Your task to perform on an android device: Open CNN.com Image 0: 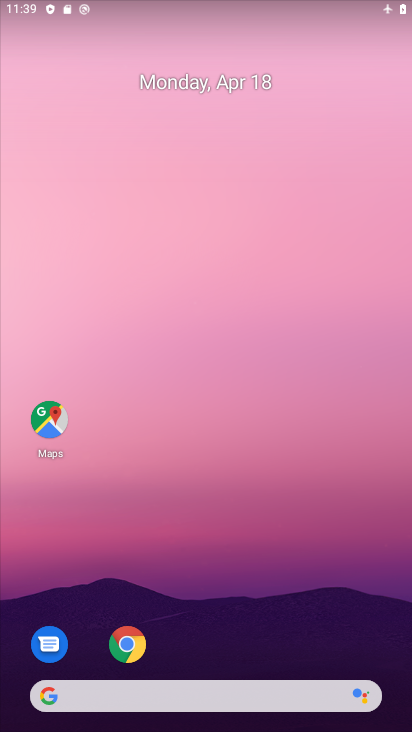
Step 0: click (127, 638)
Your task to perform on an android device: Open CNN.com Image 1: 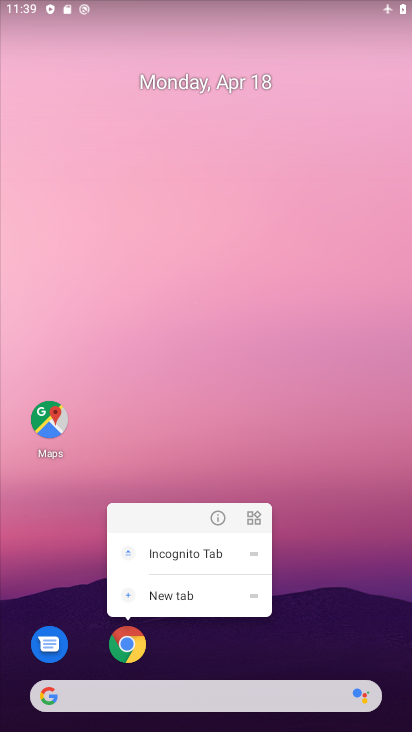
Step 1: click (117, 654)
Your task to perform on an android device: Open CNN.com Image 2: 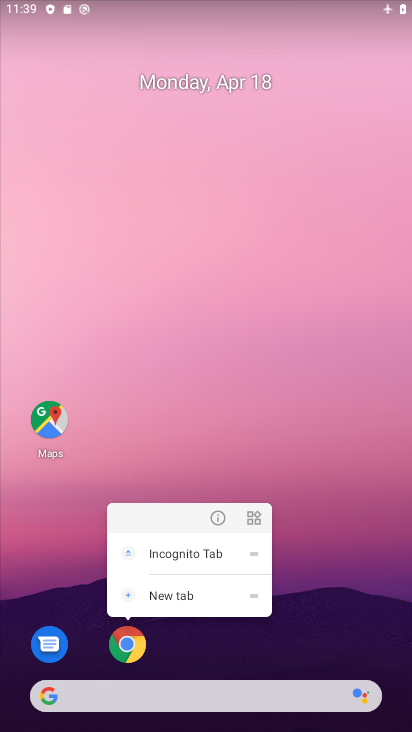
Step 2: click (128, 648)
Your task to perform on an android device: Open CNN.com Image 3: 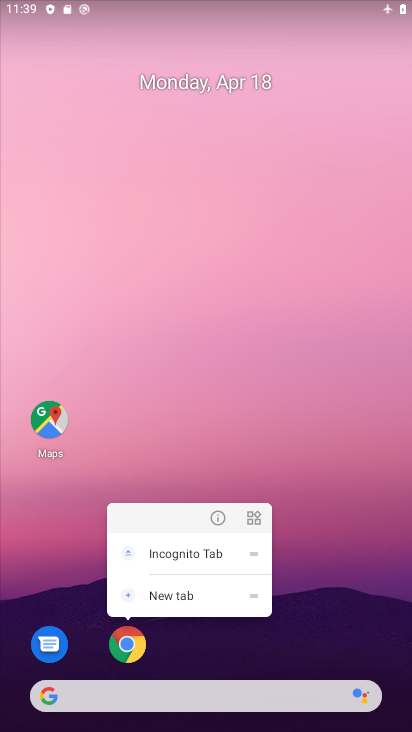
Step 3: click (134, 648)
Your task to perform on an android device: Open CNN.com Image 4: 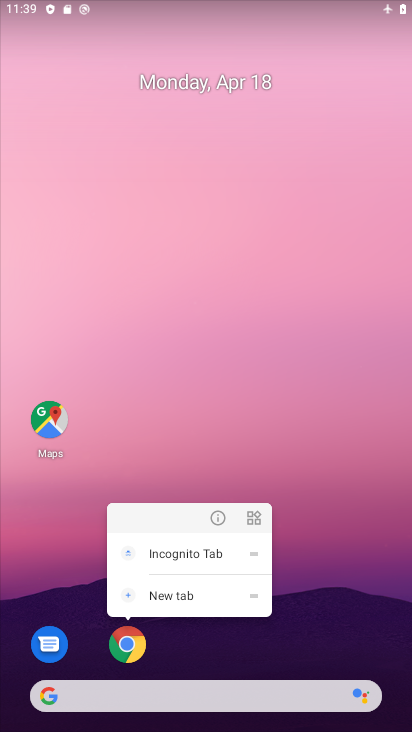
Step 4: click (133, 628)
Your task to perform on an android device: Open CNN.com Image 5: 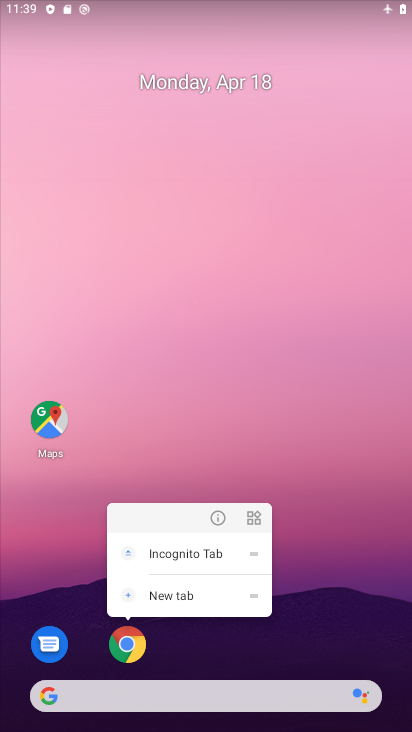
Step 5: click (128, 651)
Your task to perform on an android device: Open CNN.com Image 6: 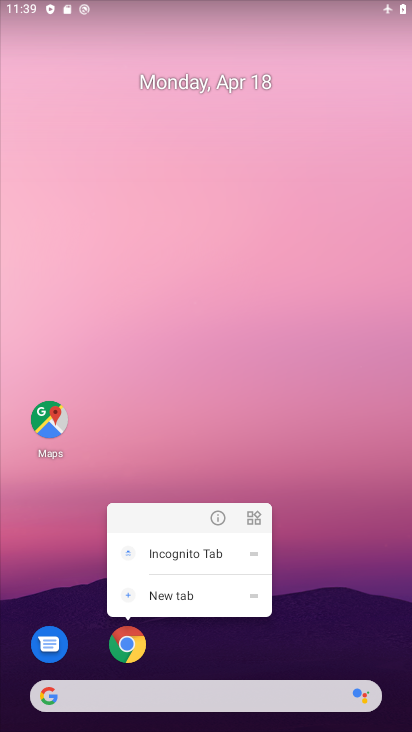
Step 6: click (118, 637)
Your task to perform on an android device: Open CNN.com Image 7: 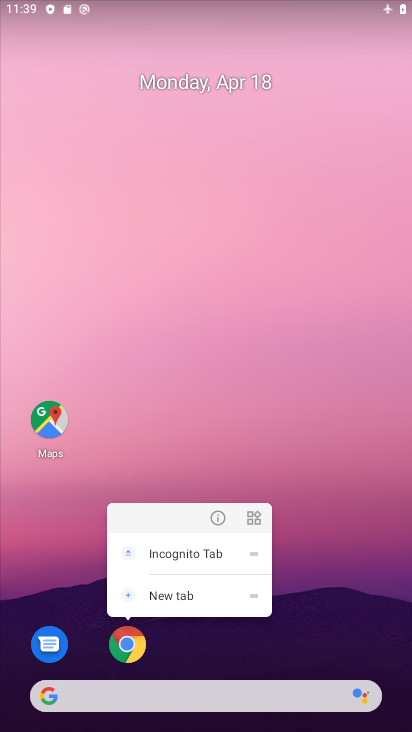
Step 7: click (128, 645)
Your task to perform on an android device: Open CNN.com Image 8: 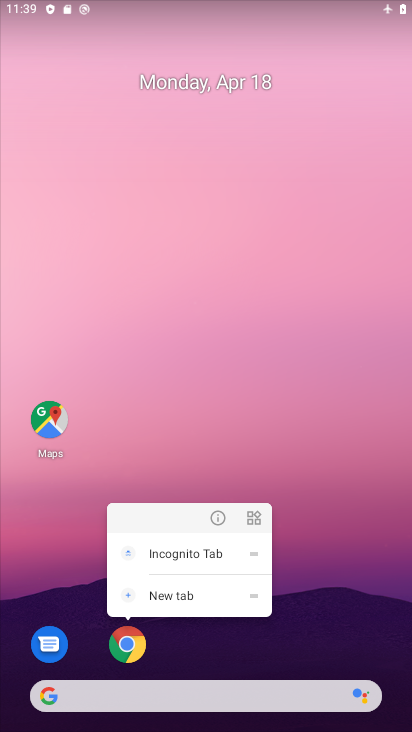
Step 8: click (136, 657)
Your task to perform on an android device: Open CNN.com Image 9: 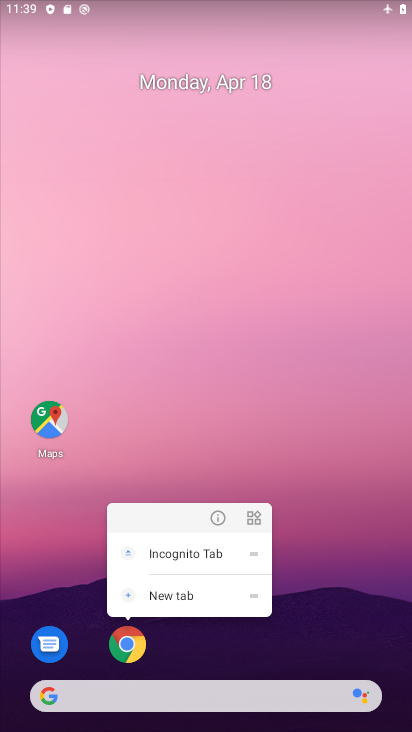
Step 9: click (135, 649)
Your task to perform on an android device: Open CNN.com Image 10: 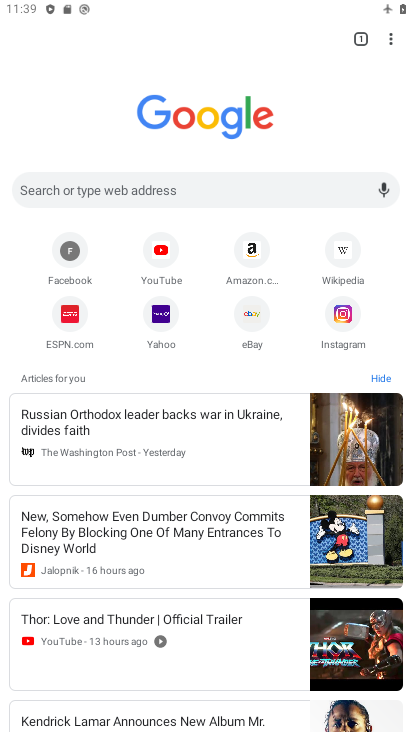
Step 10: click (142, 189)
Your task to perform on an android device: Open CNN.com Image 11: 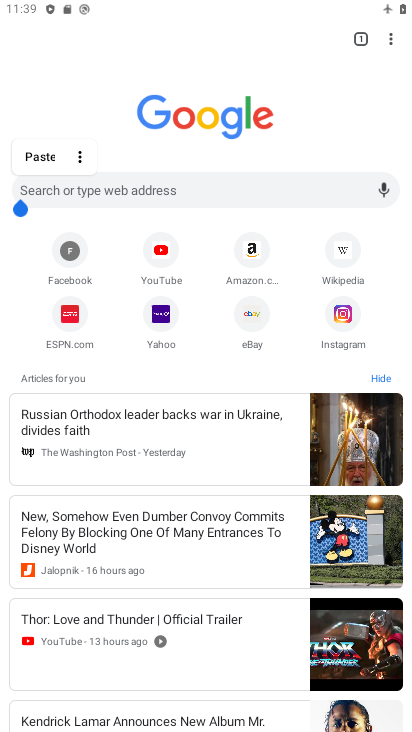
Step 11: click (86, 179)
Your task to perform on an android device: Open CNN.com Image 12: 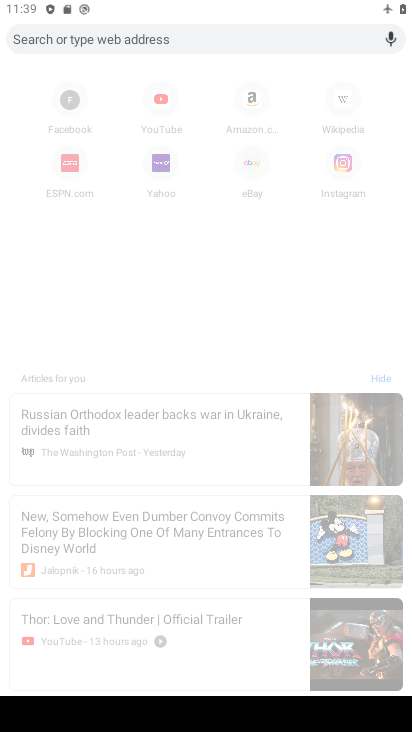
Step 12: type "CNN.com"
Your task to perform on an android device: Open CNN.com Image 13: 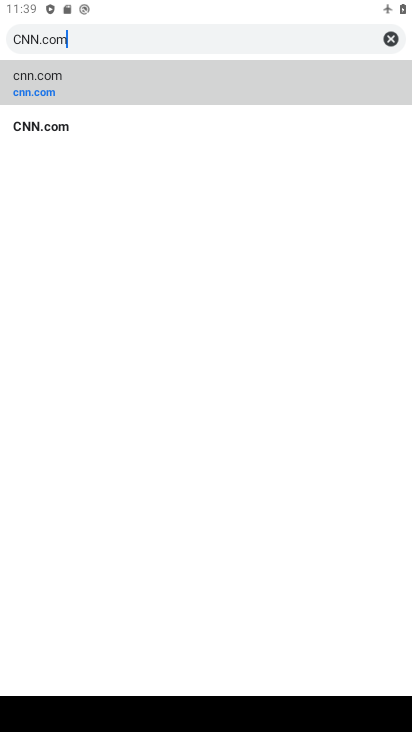
Step 13: click (124, 94)
Your task to perform on an android device: Open CNN.com Image 14: 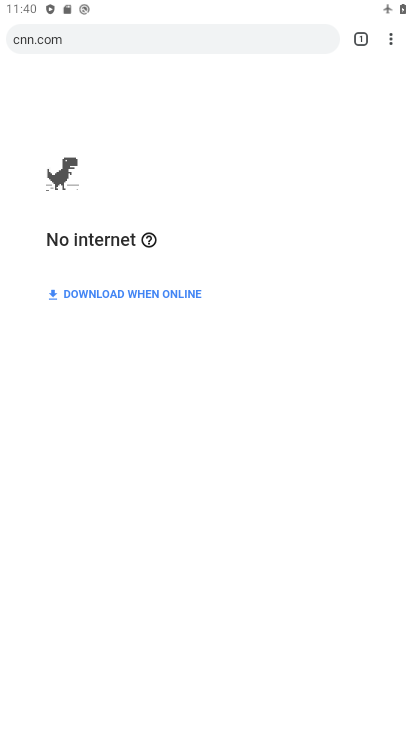
Step 14: task complete